Your task to perform on an android device: Search for Italian restaurants on Maps Image 0: 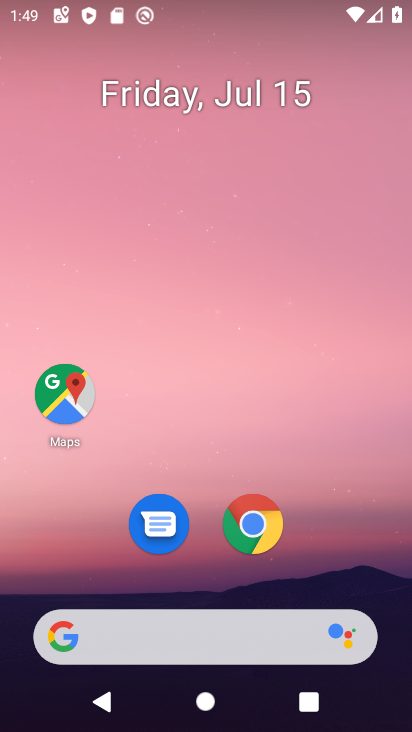
Step 0: click (58, 395)
Your task to perform on an android device: Search for Italian restaurants on Maps Image 1: 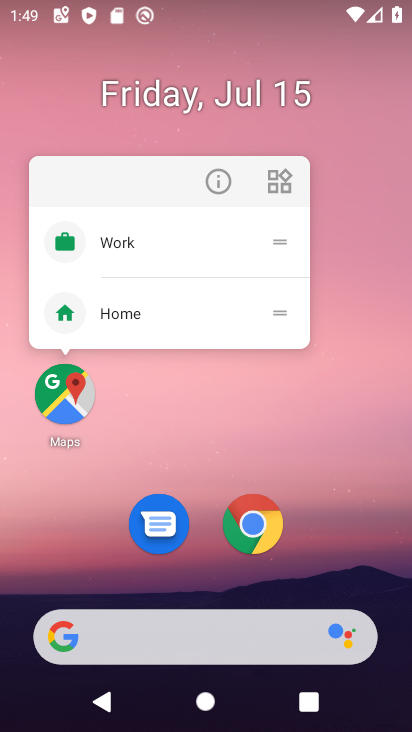
Step 1: click (58, 395)
Your task to perform on an android device: Search for Italian restaurants on Maps Image 2: 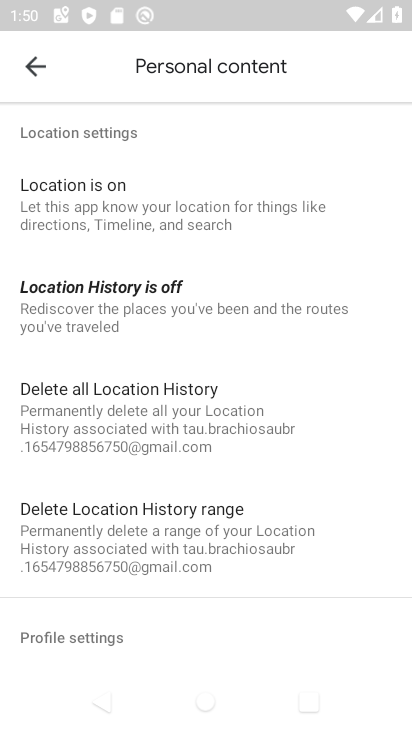
Step 2: click (45, 64)
Your task to perform on an android device: Search for Italian restaurants on Maps Image 3: 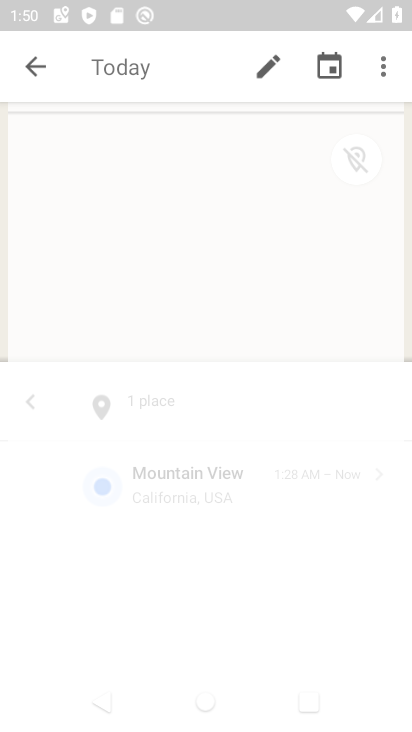
Step 3: click (44, 68)
Your task to perform on an android device: Search for Italian restaurants on Maps Image 4: 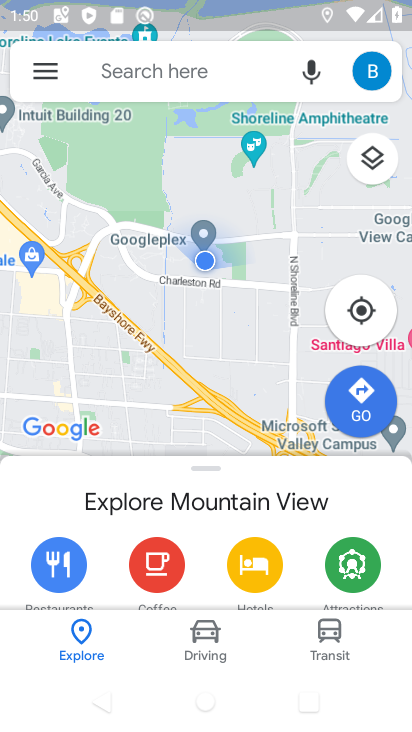
Step 4: click (135, 68)
Your task to perform on an android device: Search for Italian restaurants on Maps Image 5: 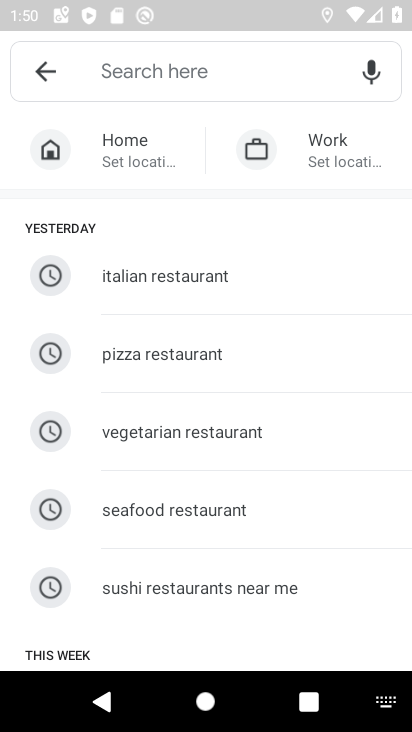
Step 5: click (180, 283)
Your task to perform on an android device: Search for Italian restaurants on Maps Image 6: 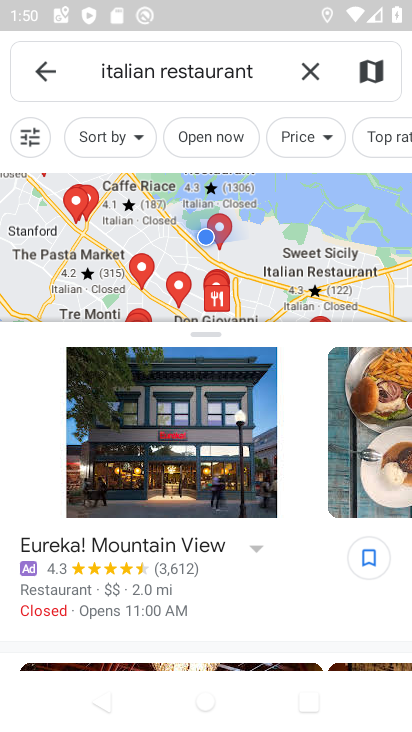
Step 6: task complete